Your task to perform on an android device: Open accessibility settings Image 0: 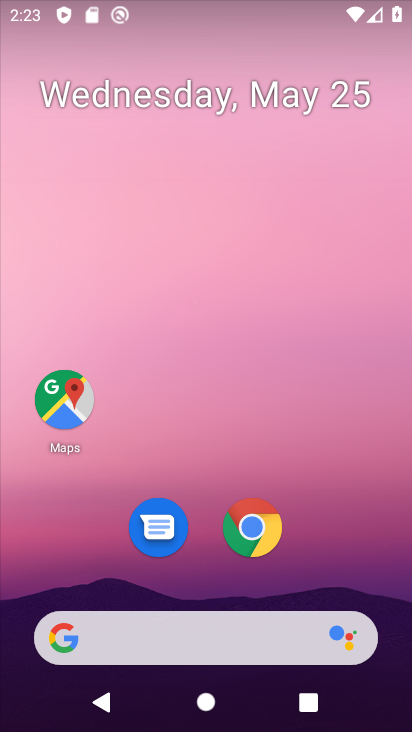
Step 0: drag from (194, 574) to (222, 49)
Your task to perform on an android device: Open accessibility settings Image 1: 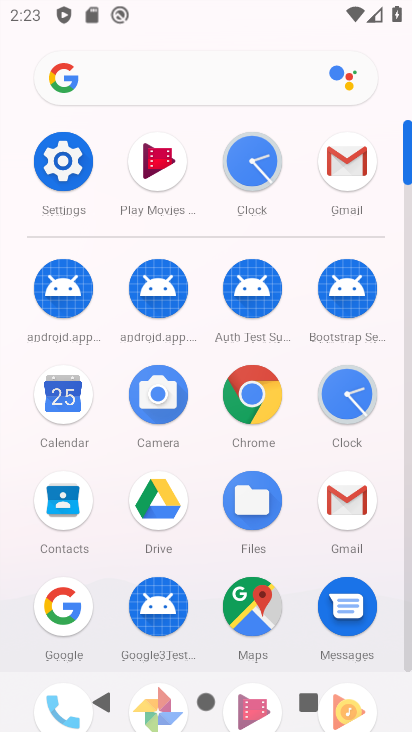
Step 1: click (58, 146)
Your task to perform on an android device: Open accessibility settings Image 2: 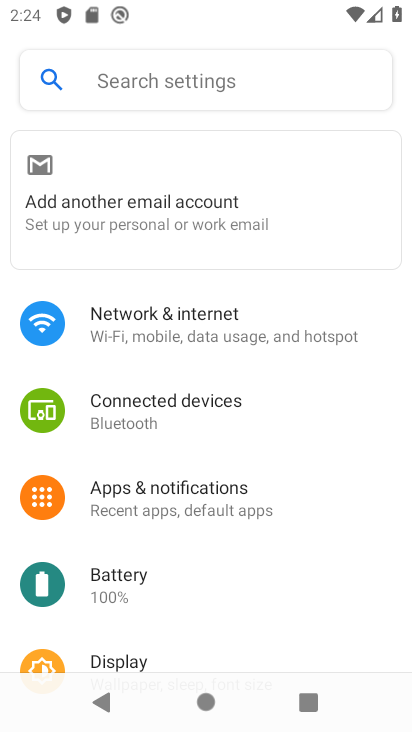
Step 2: drag from (217, 604) to (252, 56)
Your task to perform on an android device: Open accessibility settings Image 3: 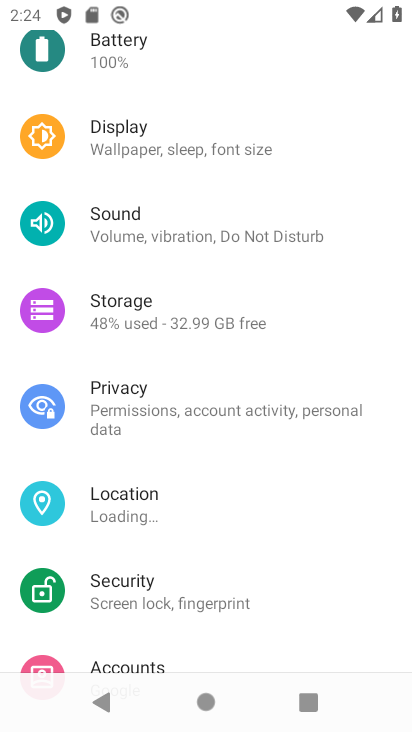
Step 3: drag from (165, 566) to (243, 79)
Your task to perform on an android device: Open accessibility settings Image 4: 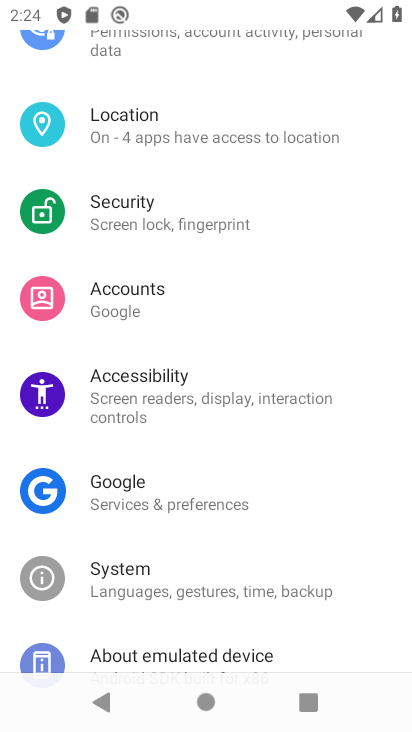
Step 4: click (167, 399)
Your task to perform on an android device: Open accessibility settings Image 5: 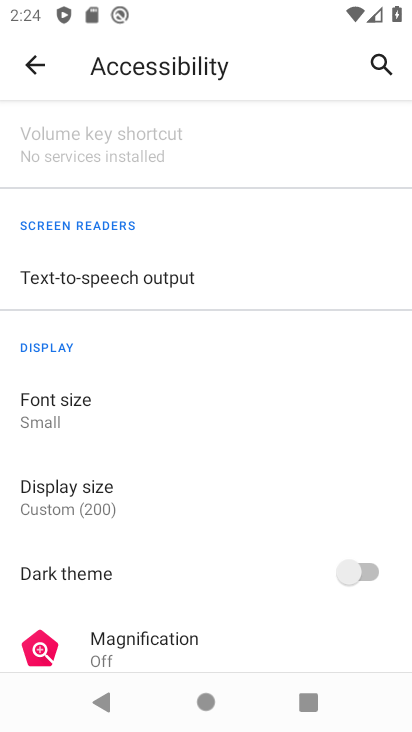
Step 5: task complete